Your task to perform on an android device: toggle airplane mode Image 0: 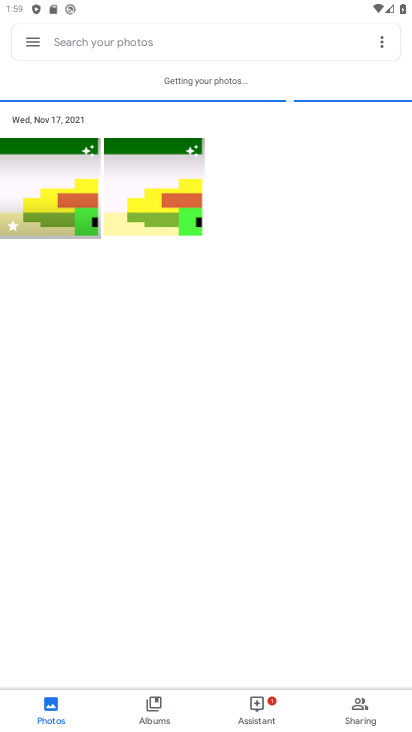
Step 0: press home button
Your task to perform on an android device: toggle airplane mode Image 1: 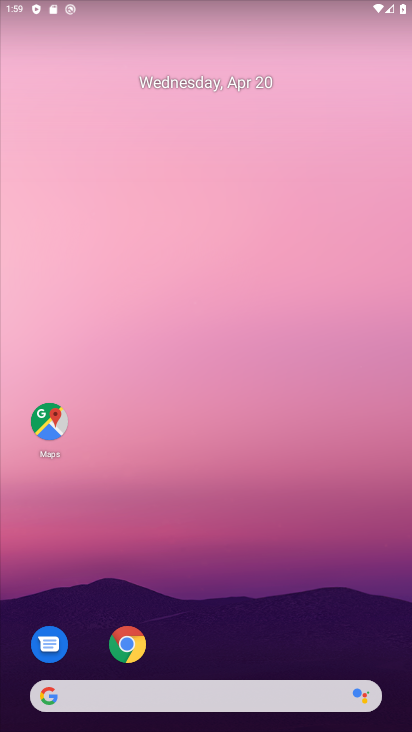
Step 1: drag from (227, 7) to (230, 490)
Your task to perform on an android device: toggle airplane mode Image 2: 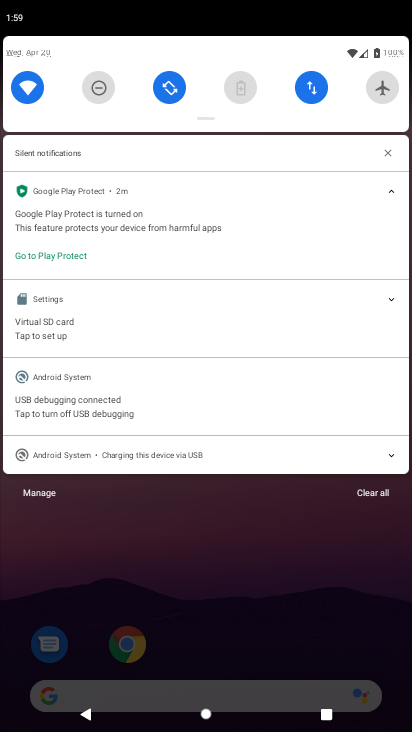
Step 2: drag from (238, 93) to (238, 401)
Your task to perform on an android device: toggle airplane mode Image 3: 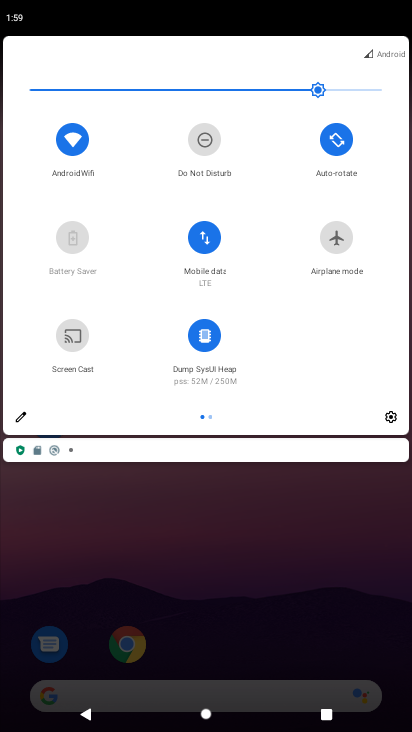
Step 3: click (334, 231)
Your task to perform on an android device: toggle airplane mode Image 4: 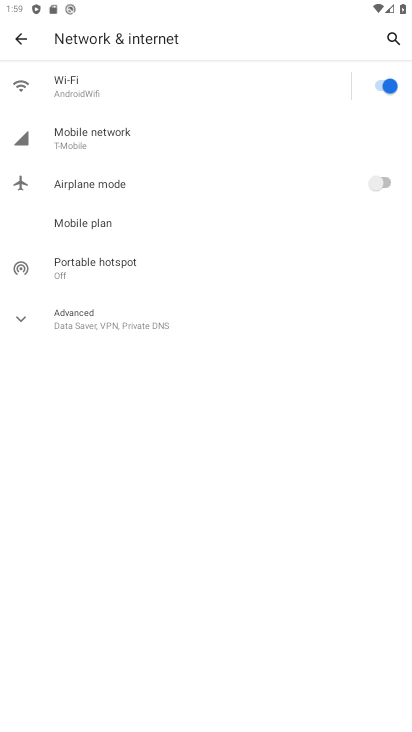
Step 4: click (379, 186)
Your task to perform on an android device: toggle airplane mode Image 5: 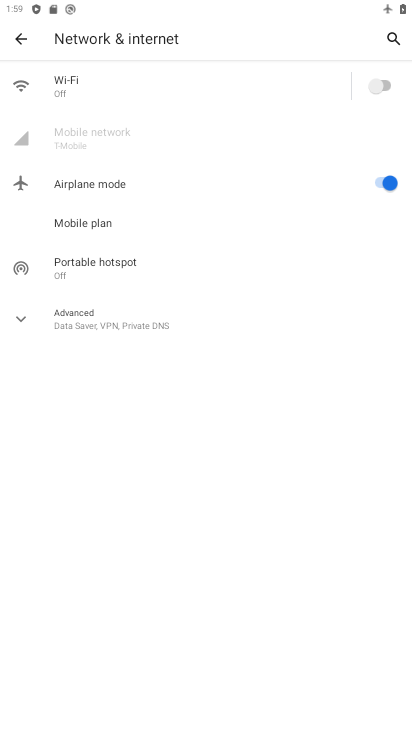
Step 5: task complete